Your task to perform on an android device: uninstall "Facebook Lite" Image 0: 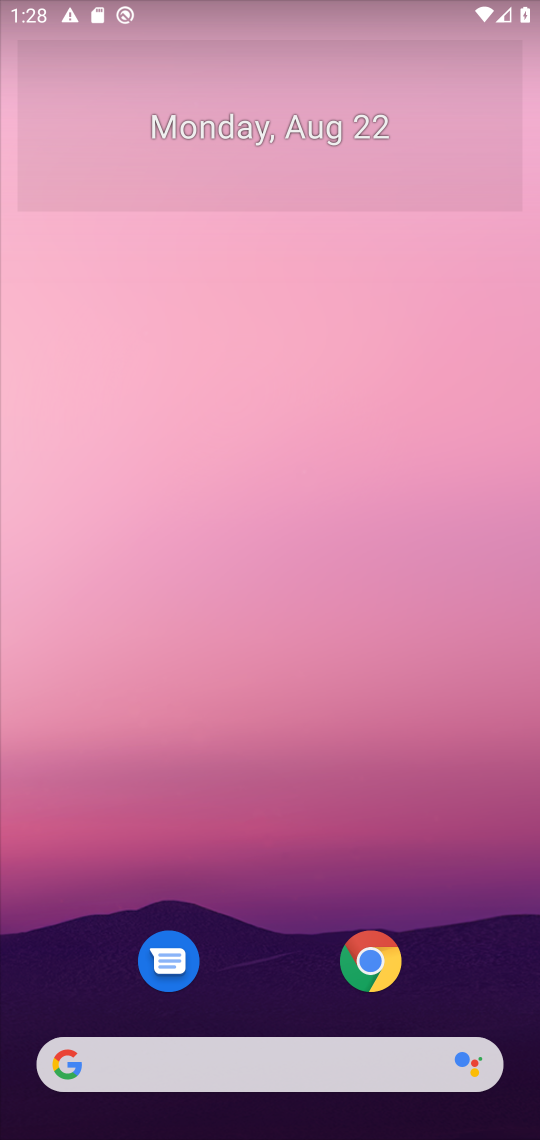
Step 0: press home button
Your task to perform on an android device: uninstall "Facebook Lite" Image 1: 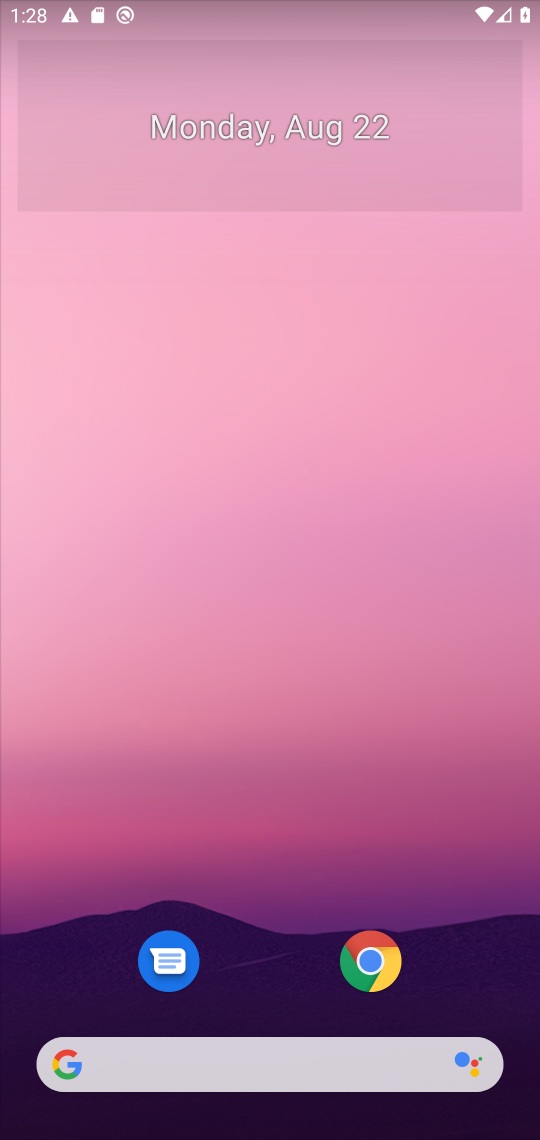
Step 1: drag from (471, 986) to (509, 89)
Your task to perform on an android device: uninstall "Facebook Lite" Image 2: 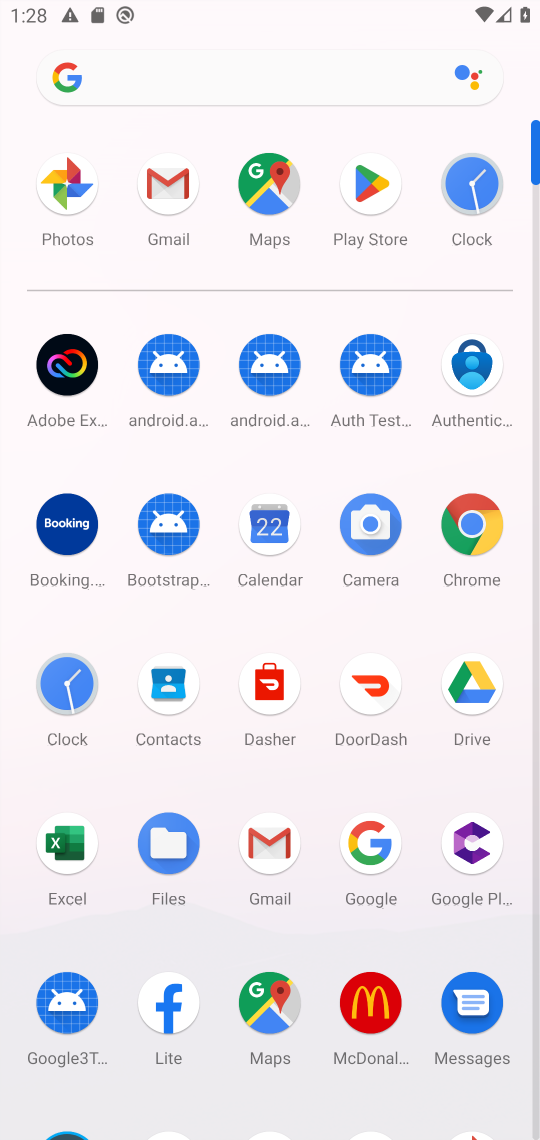
Step 2: click (371, 181)
Your task to perform on an android device: uninstall "Facebook Lite" Image 3: 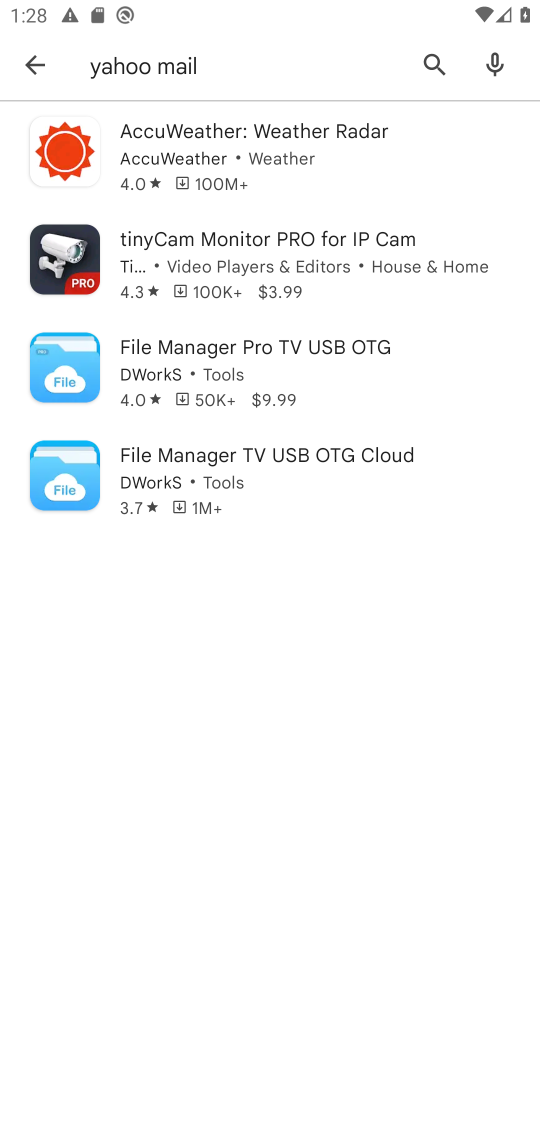
Step 3: press back button
Your task to perform on an android device: uninstall "Facebook Lite" Image 4: 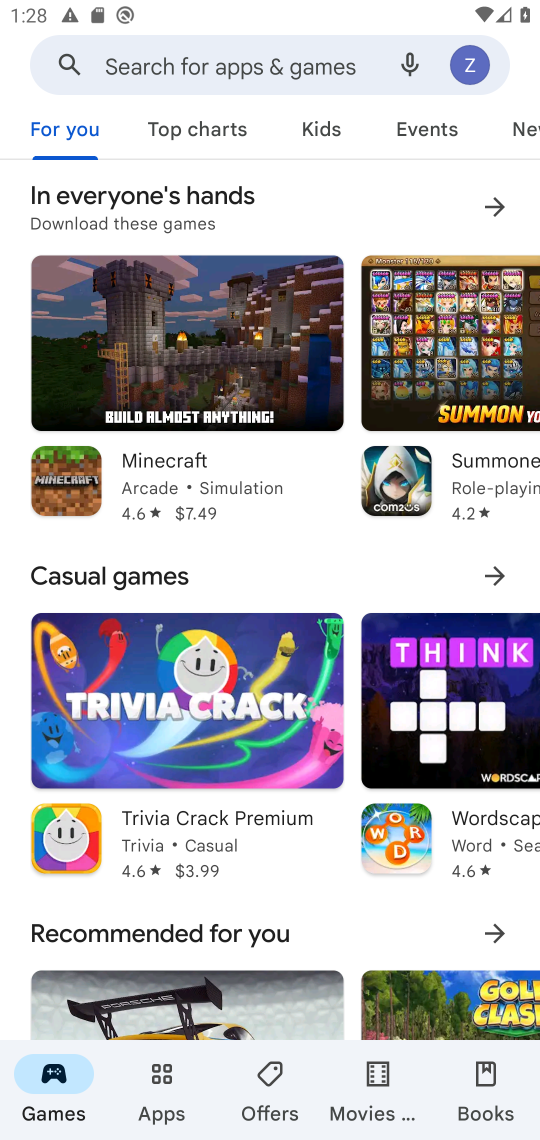
Step 4: click (262, 64)
Your task to perform on an android device: uninstall "Facebook Lite" Image 5: 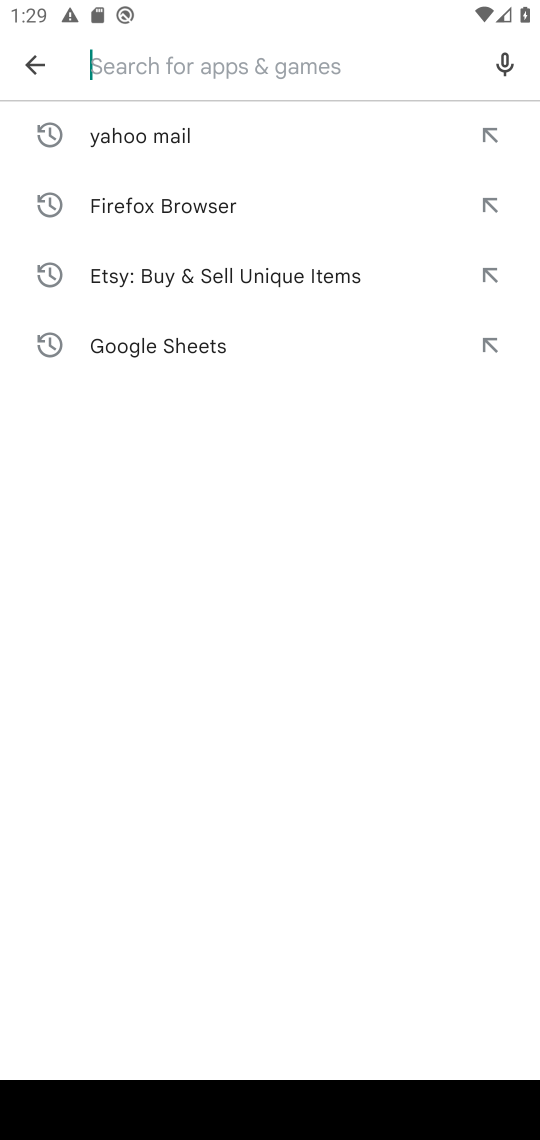
Step 5: type "facebook lite"
Your task to perform on an android device: uninstall "Facebook Lite" Image 6: 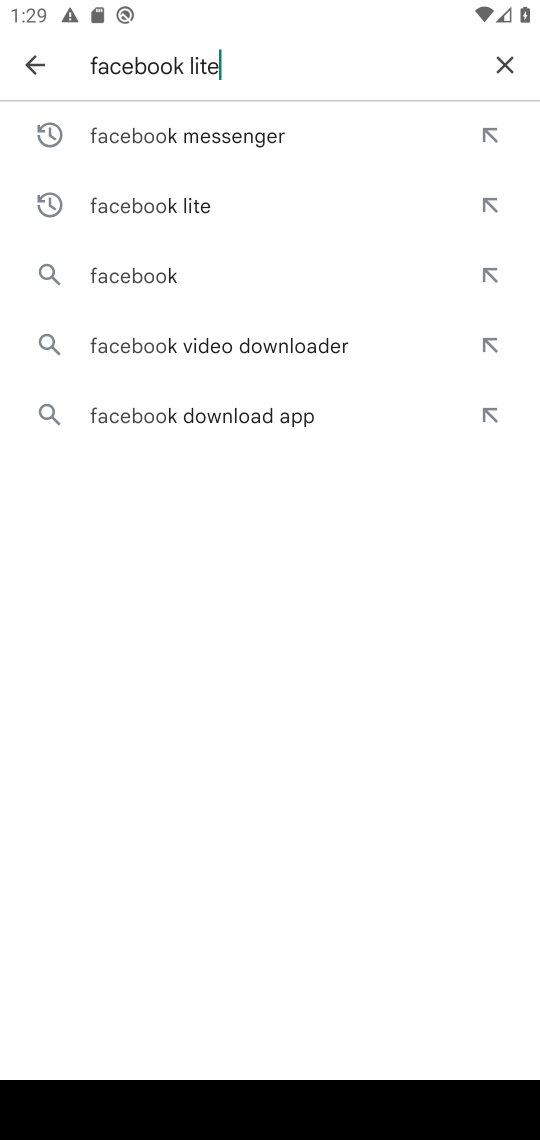
Step 6: press enter
Your task to perform on an android device: uninstall "Facebook Lite" Image 7: 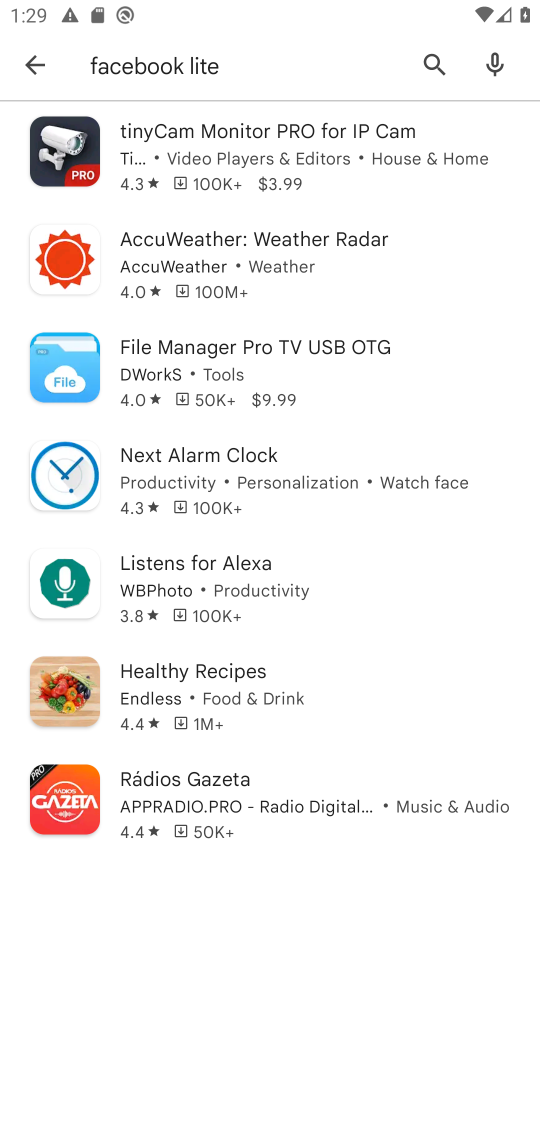
Step 7: task complete